Your task to perform on an android device: turn pop-ups on in chrome Image 0: 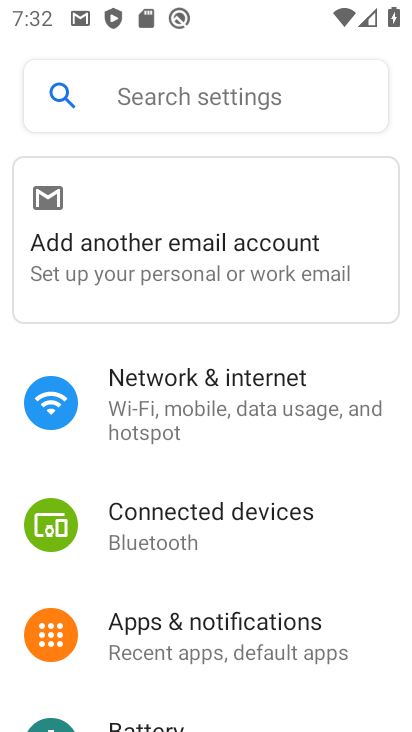
Step 0: press home button
Your task to perform on an android device: turn pop-ups on in chrome Image 1: 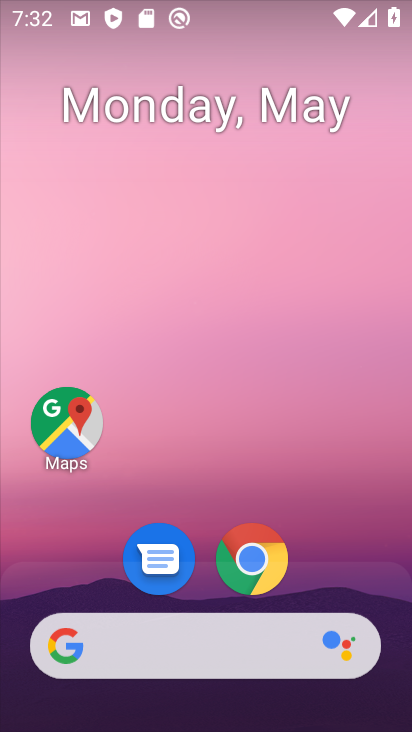
Step 1: click (245, 559)
Your task to perform on an android device: turn pop-ups on in chrome Image 2: 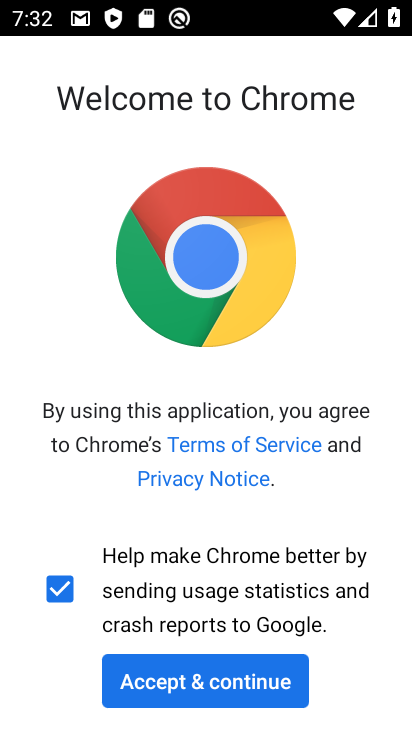
Step 2: click (244, 704)
Your task to perform on an android device: turn pop-ups on in chrome Image 3: 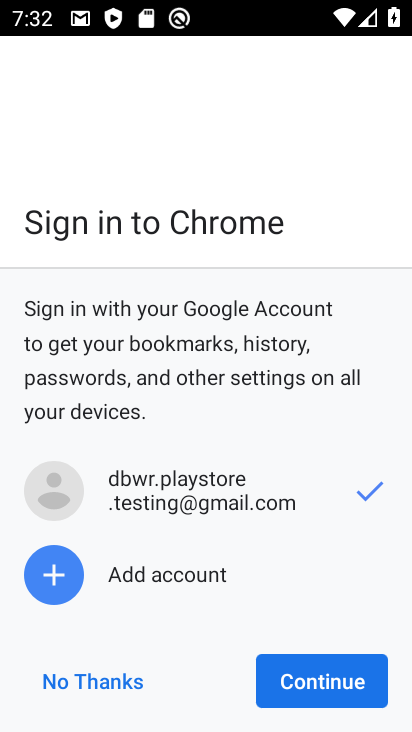
Step 3: click (302, 667)
Your task to perform on an android device: turn pop-ups on in chrome Image 4: 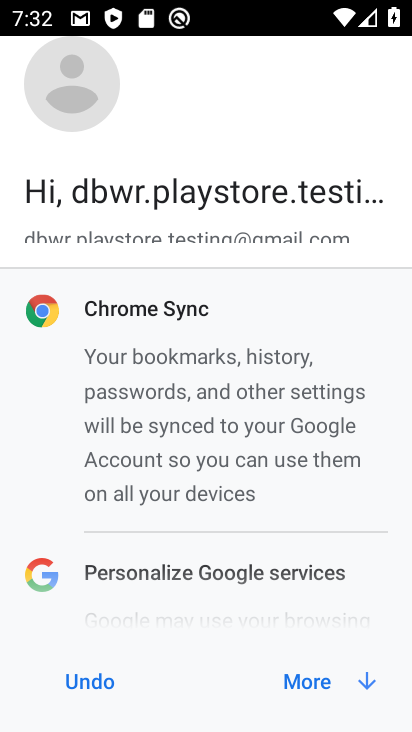
Step 4: click (308, 677)
Your task to perform on an android device: turn pop-ups on in chrome Image 5: 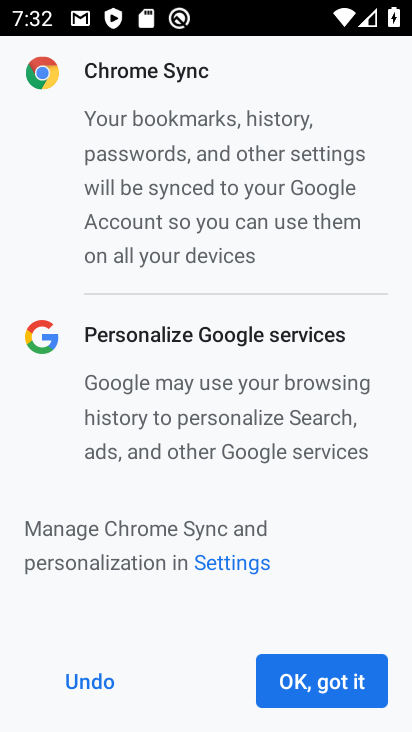
Step 5: click (307, 675)
Your task to perform on an android device: turn pop-ups on in chrome Image 6: 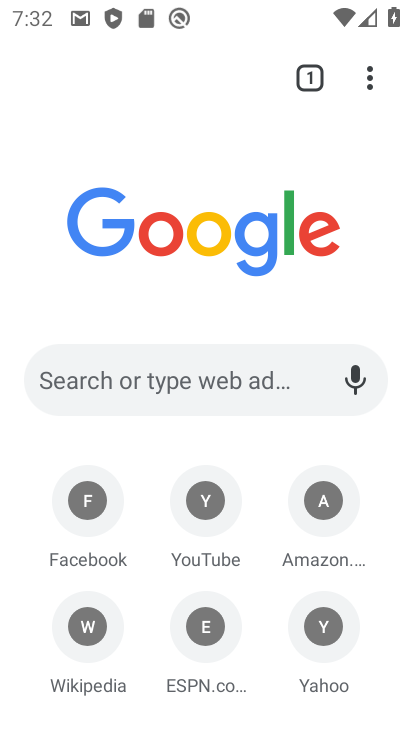
Step 6: click (366, 86)
Your task to perform on an android device: turn pop-ups on in chrome Image 7: 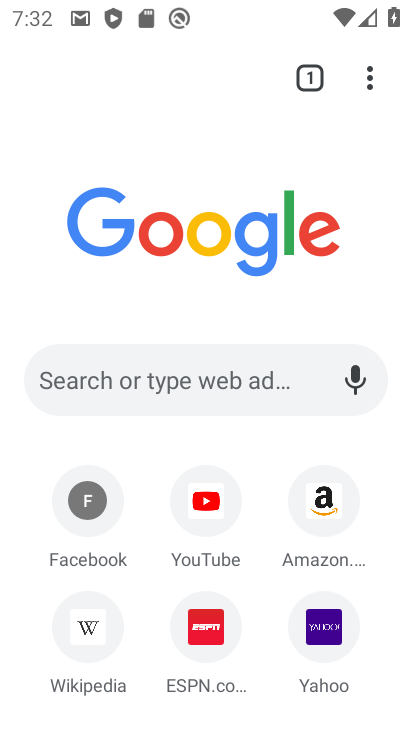
Step 7: click (367, 74)
Your task to perform on an android device: turn pop-ups on in chrome Image 8: 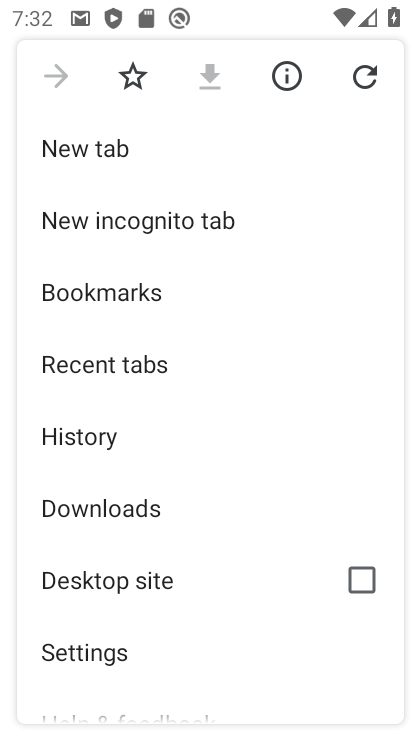
Step 8: click (101, 650)
Your task to perform on an android device: turn pop-ups on in chrome Image 9: 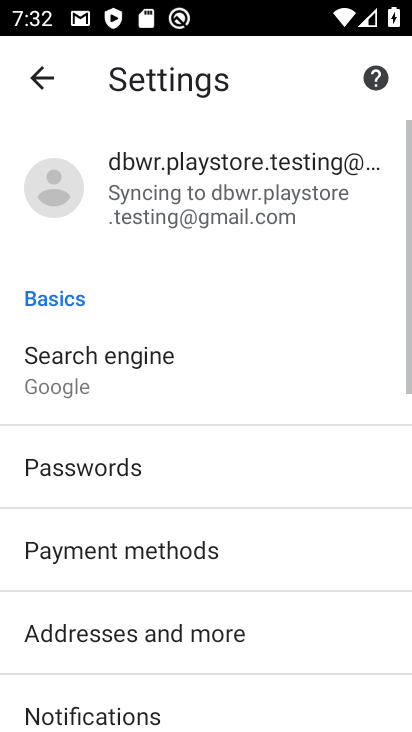
Step 9: drag from (104, 663) to (158, 218)
Your task to perform on an android device: turn pop-ups on in chrome Image 10: 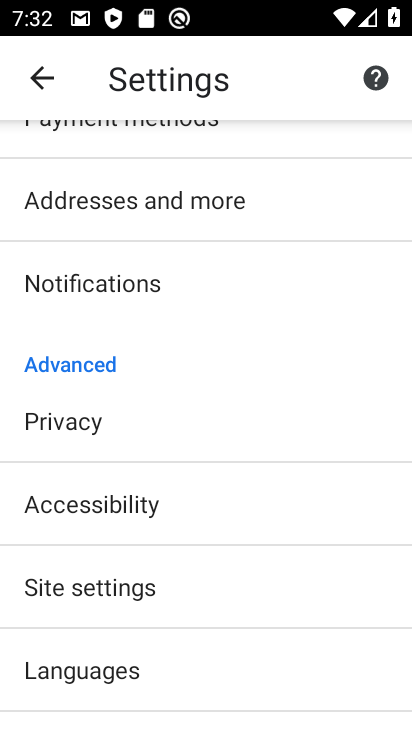
Step 10: click (102, 597)
Your task to perform on an android device: turn pop-ups on in chrome Image 11: 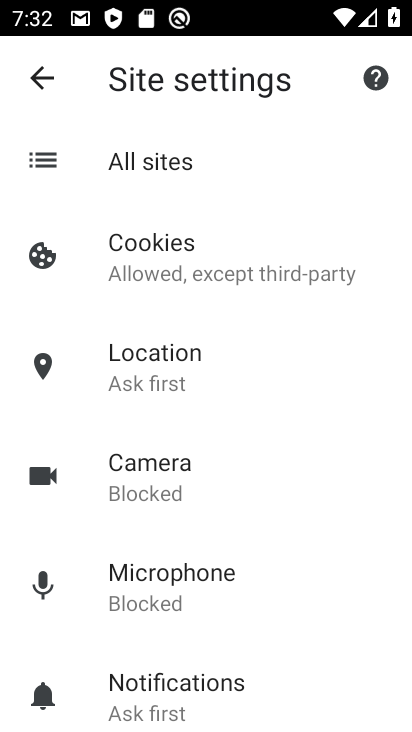
Step 11: drag from (203, 647) to (225, 240)
Your task to perform on an android device: turn pop-ups on in chrome Image 12: 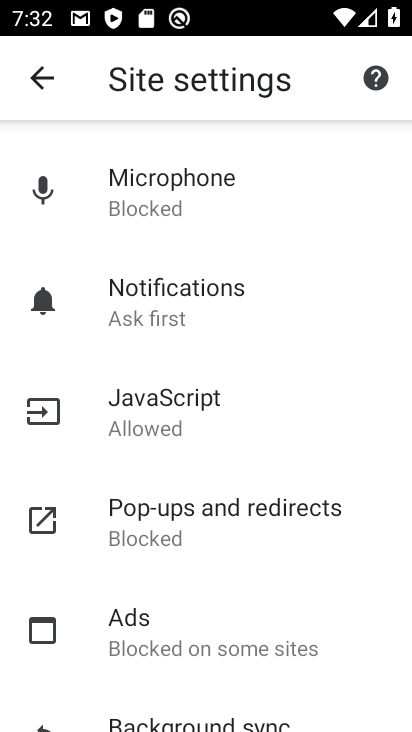
Step 12: click (180, 532)
Your task to perform on an android device: turn pop-ups on in chrome Image 13: 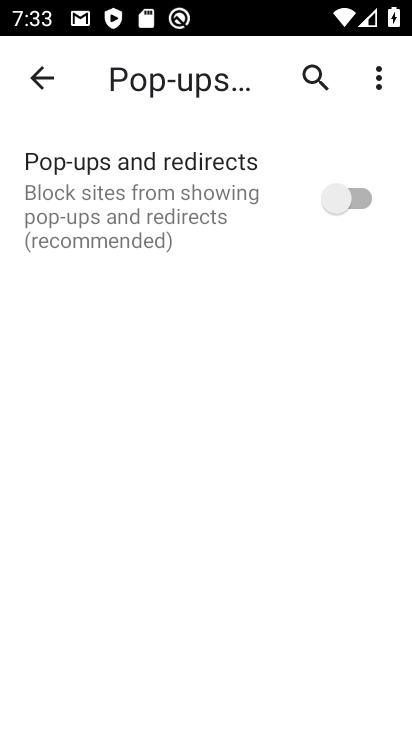
Step 13: click (349, 199)
Your task to perform on an android device: turn pop-ups on in chrome Image 14: 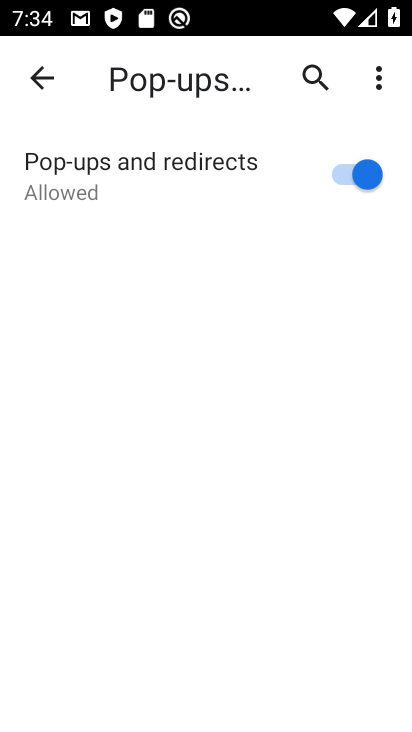
Step 14: task complete